Your task to perform on an android device: Open eBay Image 0: 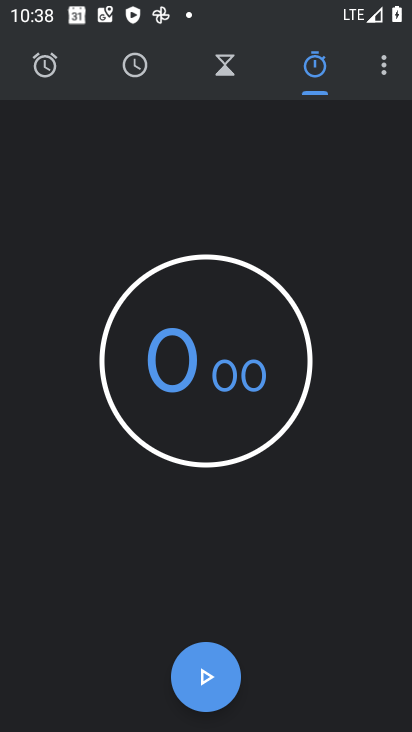
Step 0: press home button
Your task to perform on an android device: Open eBay Image 1: 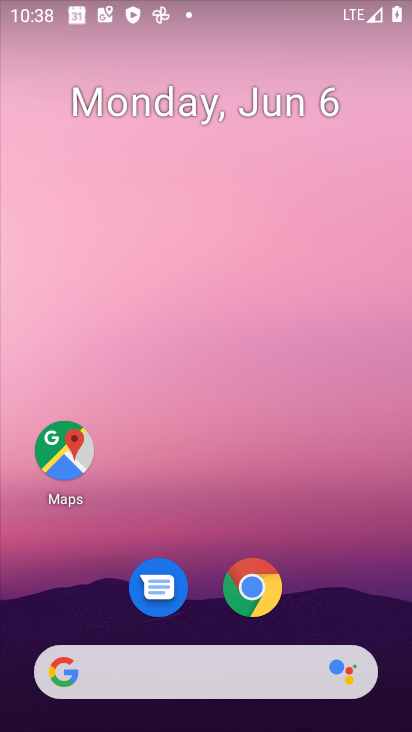
Step 1: click (160, 661)
Your task to perform on an android device: Open eBay Image 2: 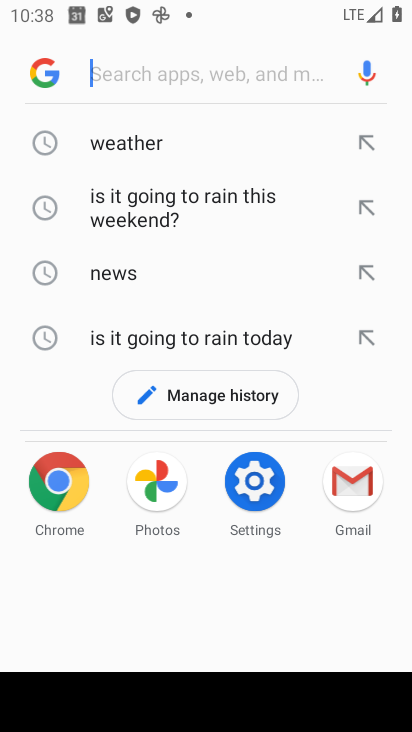
Step 2: type "ebay"
Your task to perform on an android device: Open eBay Image 3: 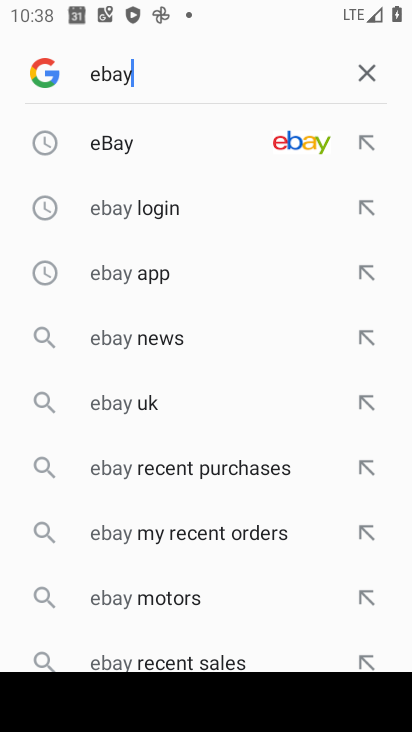
Step 3: click (303, 151)
Your task to perform on an android device: Open eBay Image 4: 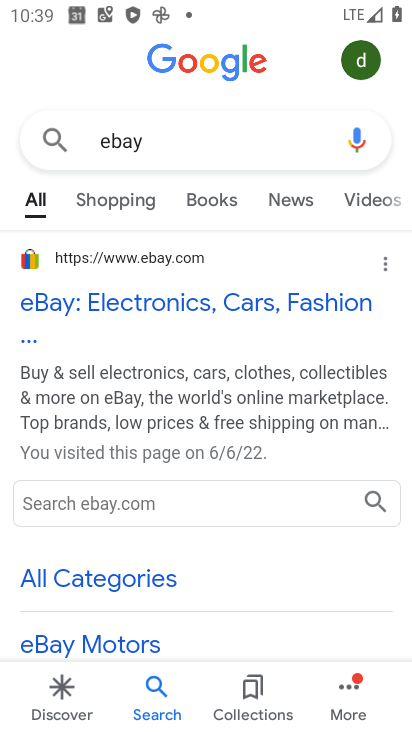
Step 4: click (165, 260)
Your task to perform on an android device: Open eBay Image 5: 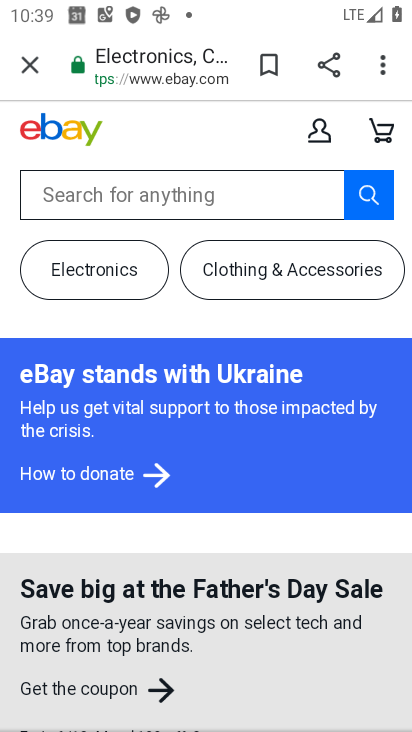
Step 5: task complete